Your task to perform on an android device: Check the news Image 0: 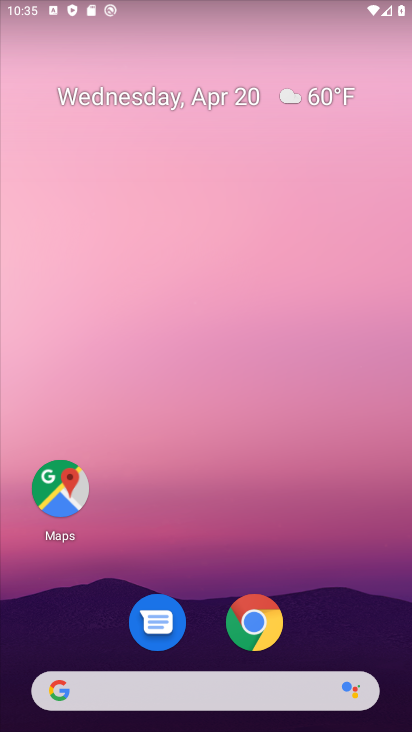
Step 0: click (273, 619)
Your task to perform on an android device: Check the news Image 1: 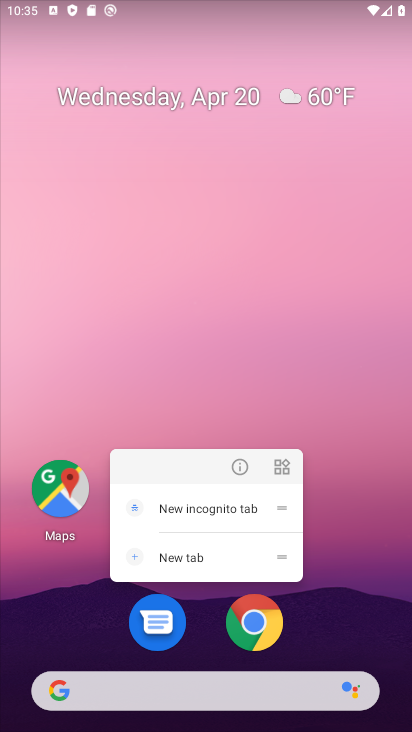
Step 1: click (273, 621)
Your task to perform on an android device: Check the news Image 2: 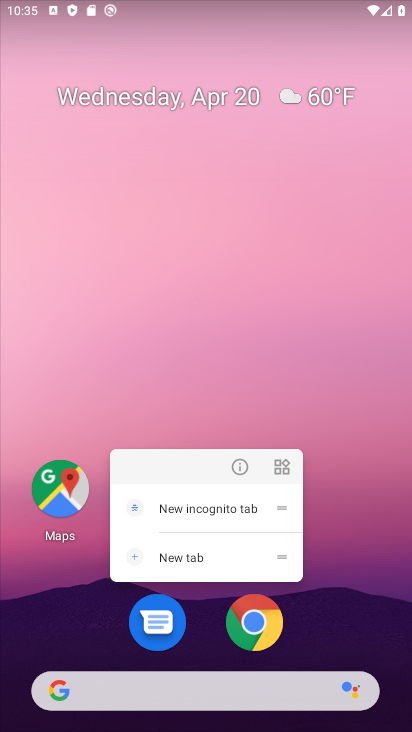
Step 2: click (273, 621)
Your task to perform on an android device: Check the news Image 3: 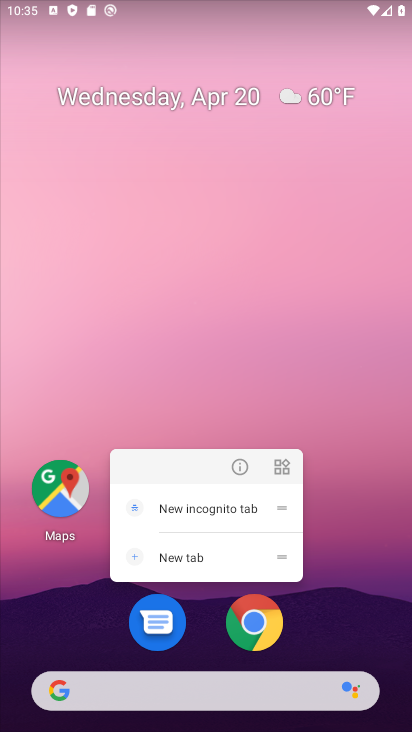
Step 3: click (273, 621)
Your task to perform on an android device: Check the news Image 4: 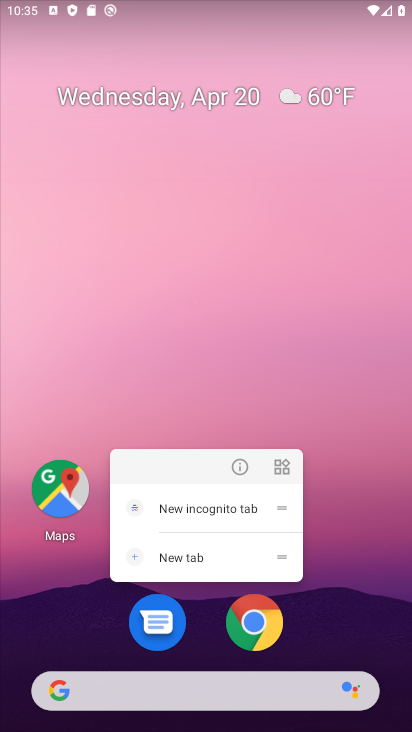
Step 4: click (273, 620)
Your task to perform on an android device: Check the news Image 5: 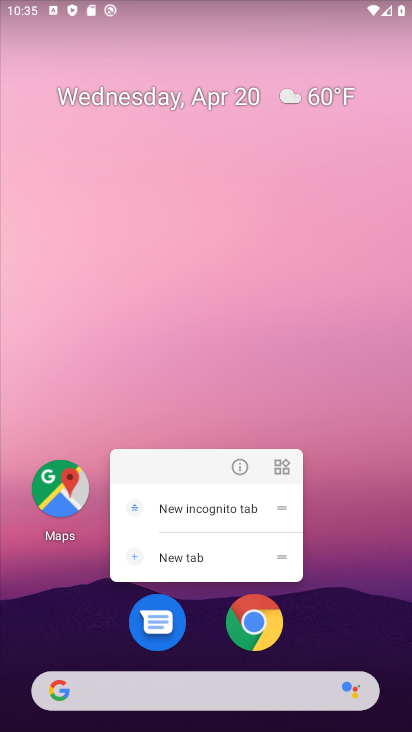
Step 5: click (273, 619)
Your task to perform on an android device: Check the news Image 6: 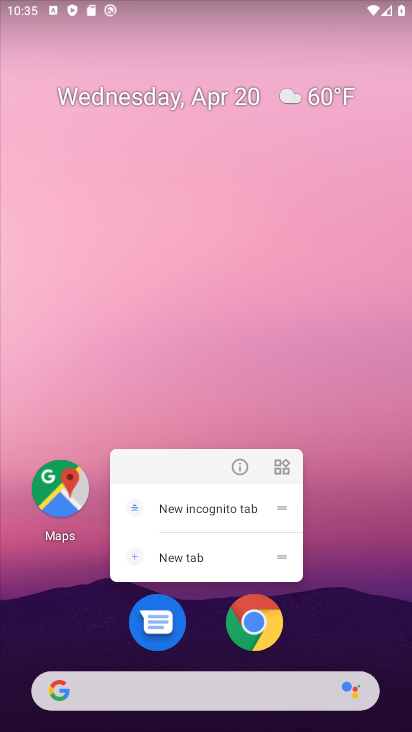
Step 6: click (273, 618)
Your task to perform on an android device: Check the news Image 7: 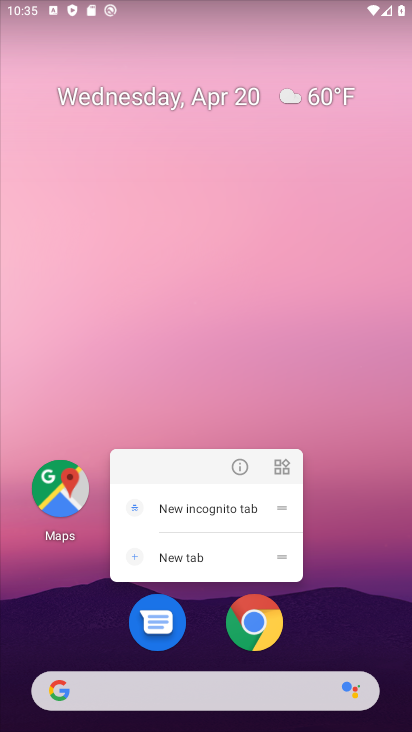
Step 7: click (255, 631)
Your task to perform on an android device: Check the news Image 8: 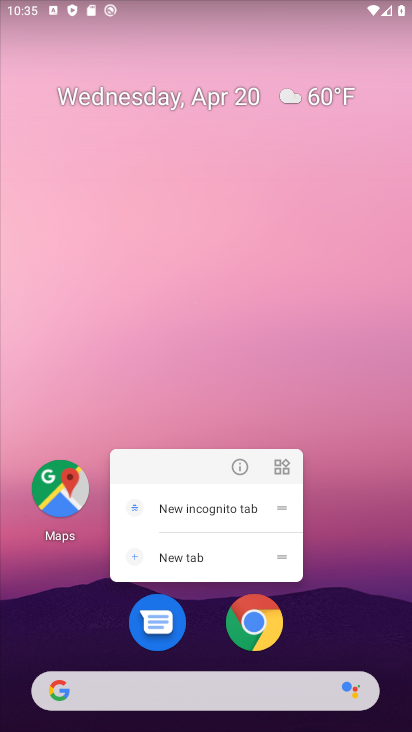
Step 8: click (255, 630)
Your task to perform on an android device: Check the news Image 9: 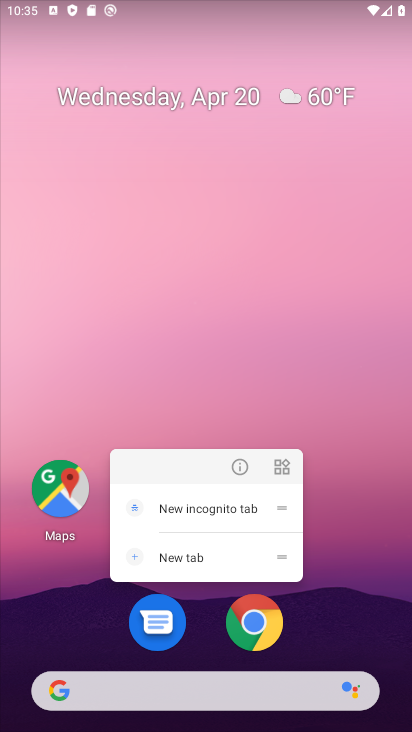
Step 9: click (255, 629)
Your task to perform on an android device: Check the news Image 10: 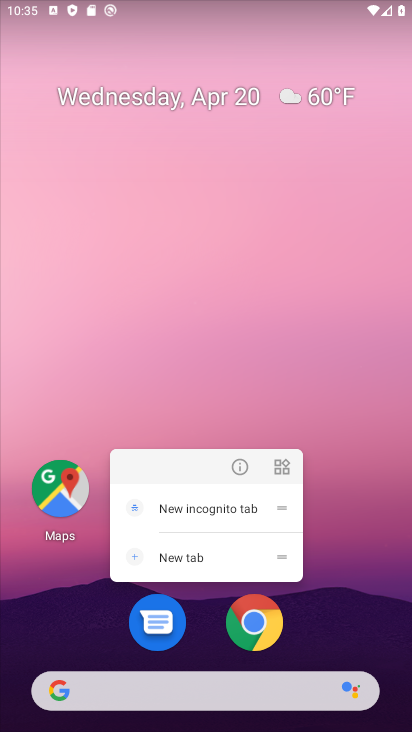
Step 10: click (255, 630)
Your task to perform on an android device: Check the news Image 11: 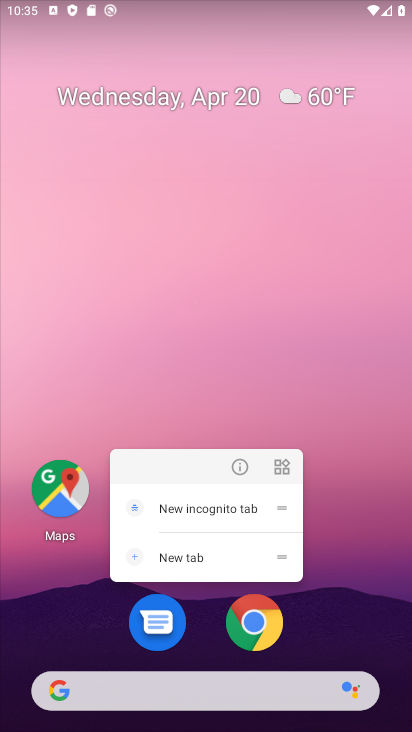
Step 11: click (255, 631)
Your task to perform on an android device: Check the news Image 12: 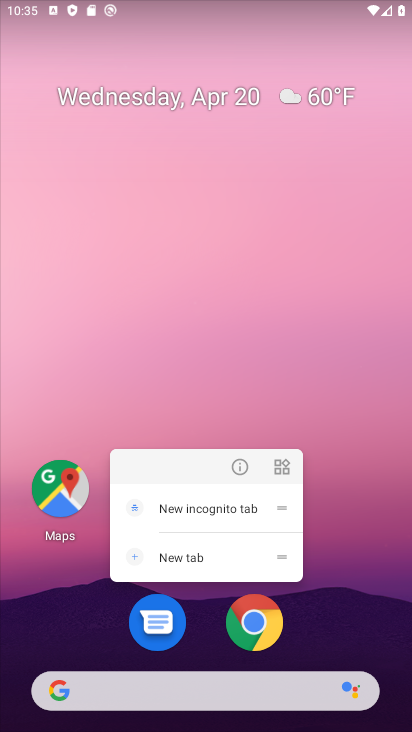
Step 12: click (255, 630)
Your task to perform on an android device: Check the news Image 13: 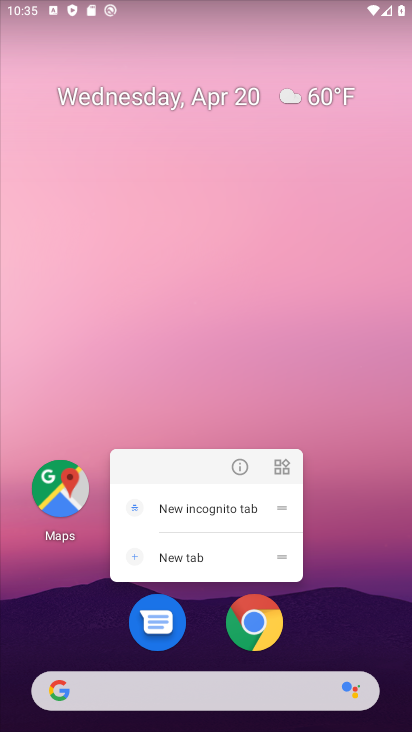
Step 13: click (255, 630)
Your task to perform on an android device: Check the news Image 14: 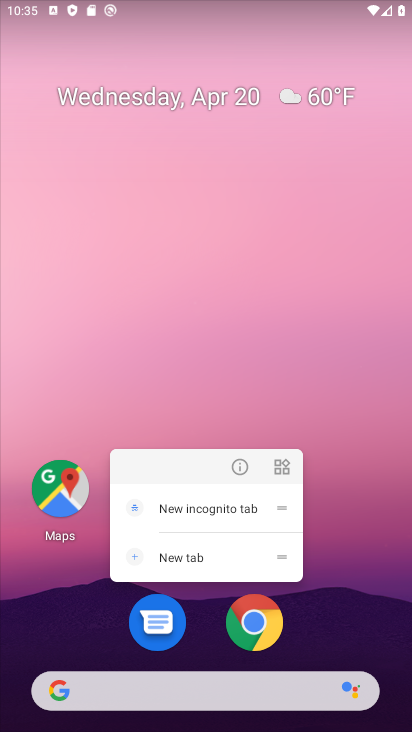
Step 14: click (255, 630)
Your task to perform on an android device: Check the news Image 15: 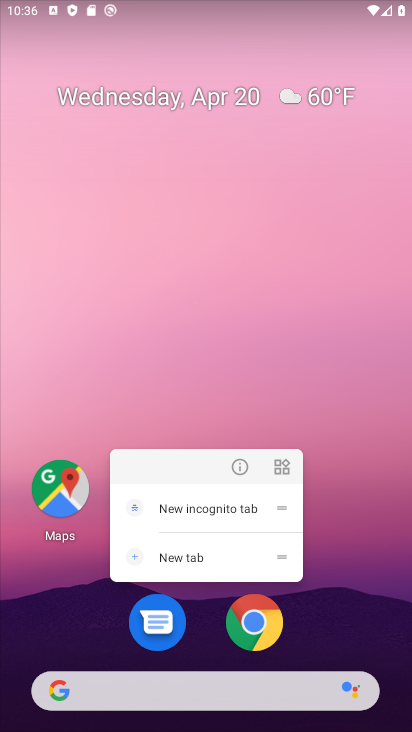
Step 15: click (255, 630)
Your task to perform on an android device: Check the news Image 16: 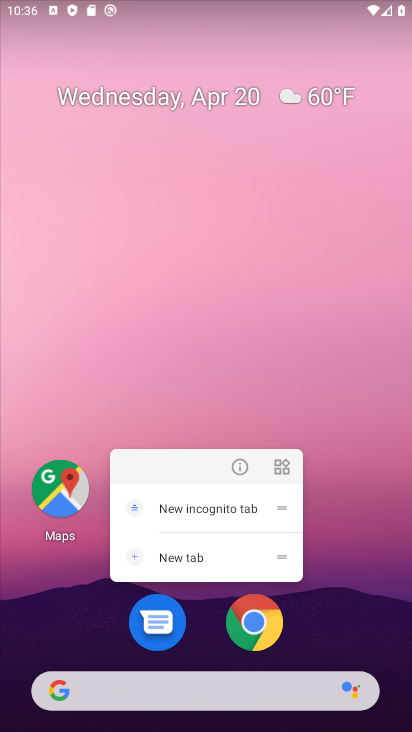
Step 16: click (255, 630)
Your task to perform on an android device: Check the news Image 17: 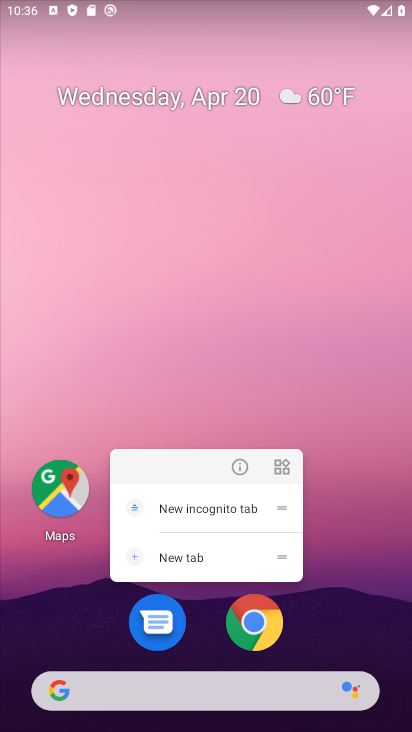
Step 17: click (255, 628)
Your task to perform on an android device: Check the news Image 18: 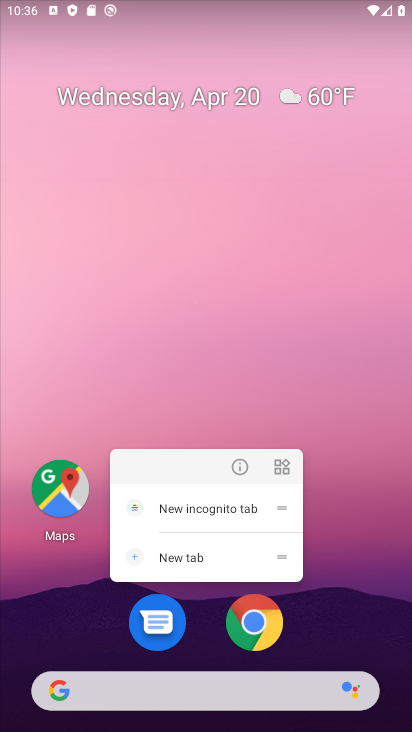
Step 18: click (255, 631)
Your task to perform on an android device: Check the news Image 19: 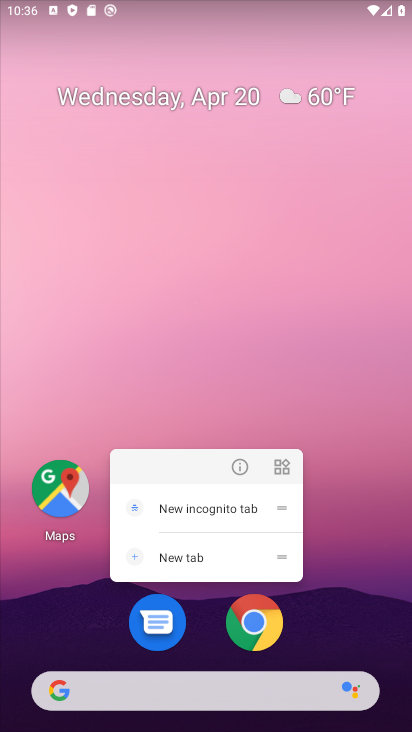
Step 19: click (253, 630)
Your task to perform on an android device: Check the news Image 20: 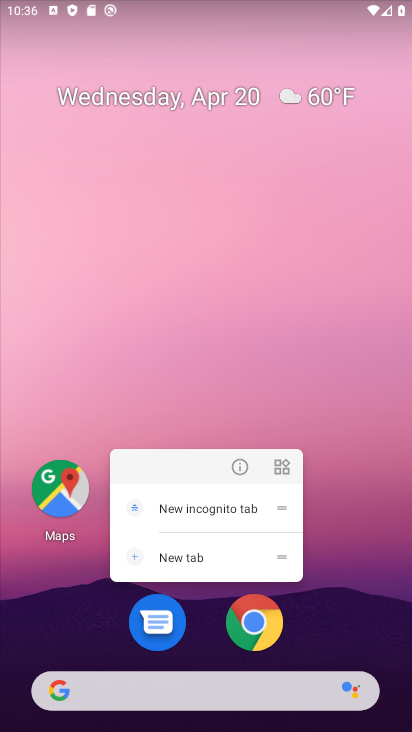
Step 20: click (253, 630)
Your task to perform on an android device: Check the news Image 21: 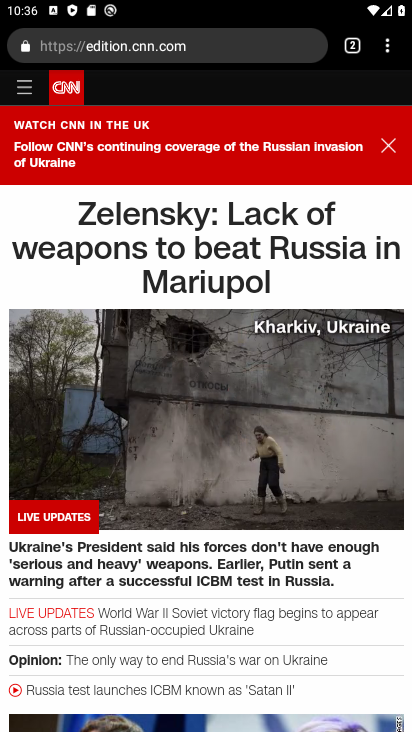
Step 21: task complete